Your task to perform on an android device: turn notification dots off Image 0: 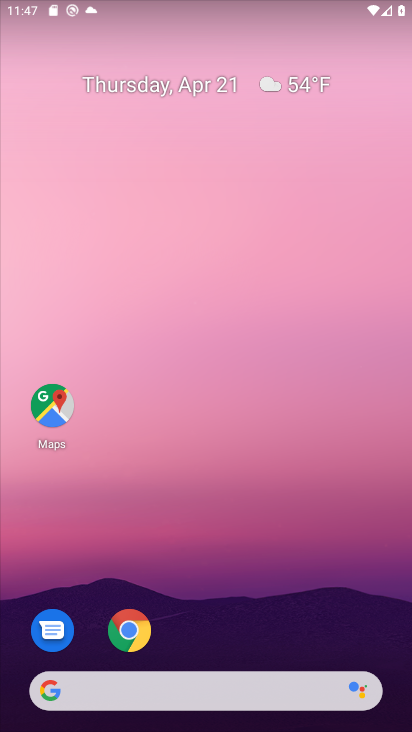
Step 0: drag from (194, 674) to (194, 151)
Your task to perform on an android device: turn notification dots off Image 1: 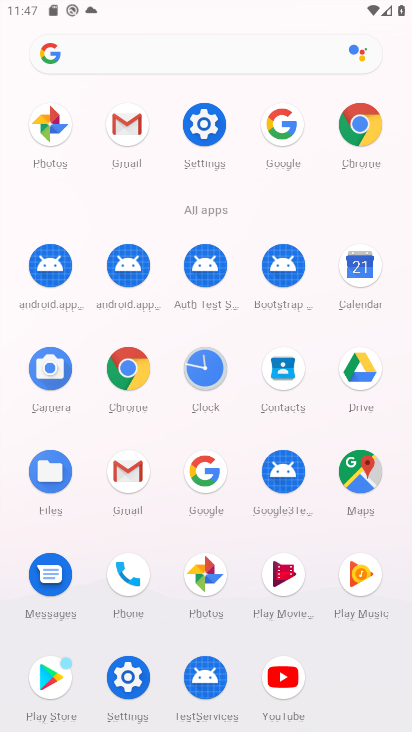
Step 1: click (208, 126)
Your task to perform on an android device: turn notification dots off Image 2: 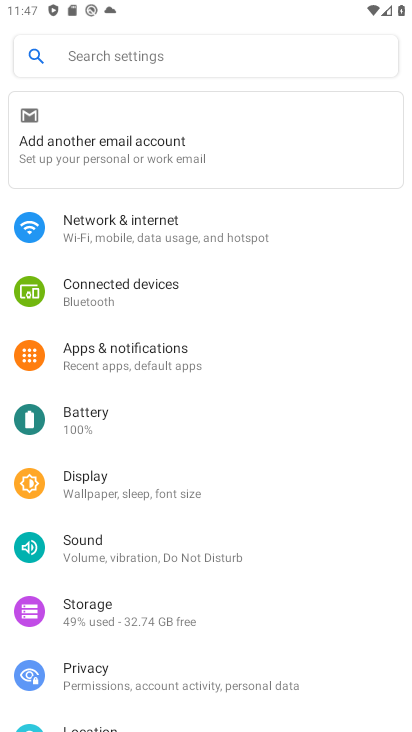
Step 2: click (117, 341)
Your task to perform on an android device: turn notification dots off Image 3: 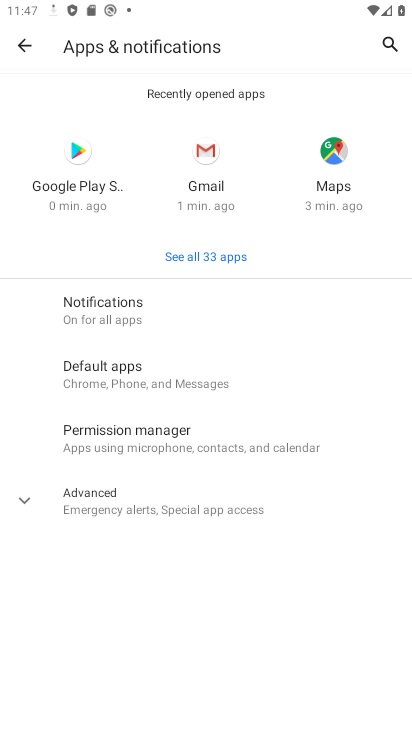
Step 3: click (109, 313)
Your task to perform on an android device: turn notification dots off Image 4: 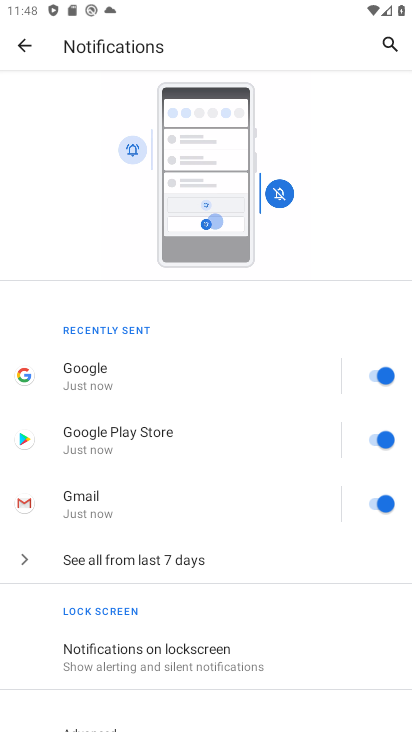
Step 4: drag from (159, 692) to (207, 341)
Your task to perform on an android device: turn notification dots off Image 5: 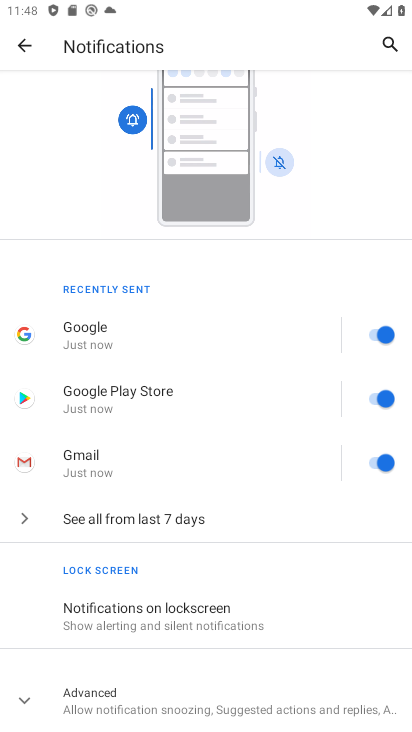
Step 5: click (145, 703)
Your task to perform on an android device: turn notification dots off Image 6: 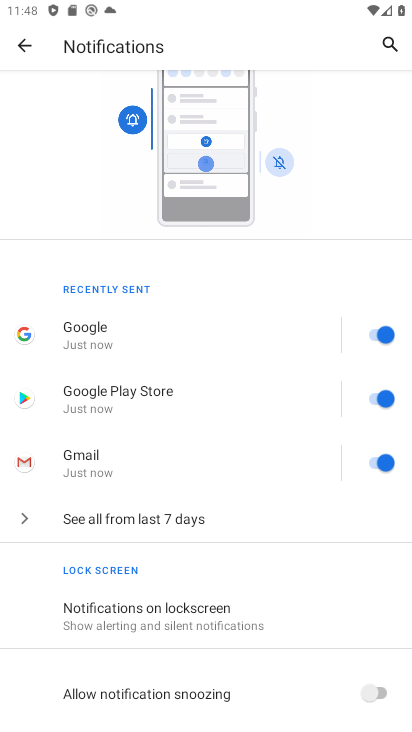
Step 6: drag from (201, 708) to (248, 325)
Your task to perform on an android device: turn notification dots off Image 7: 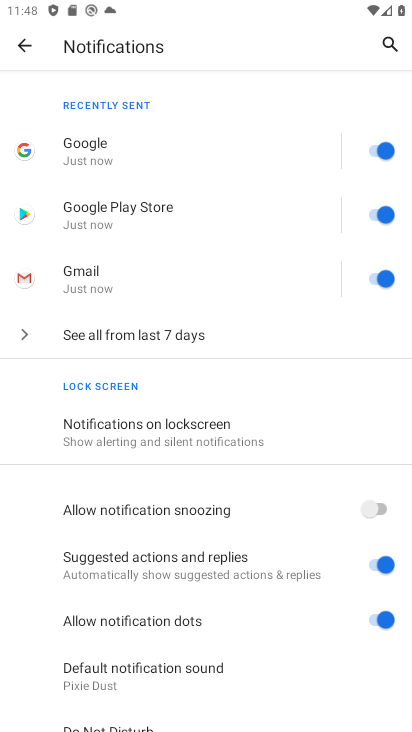
Step 7: click (369, 613)
Your task to perform on an android device: turn notification dots off Image 8: 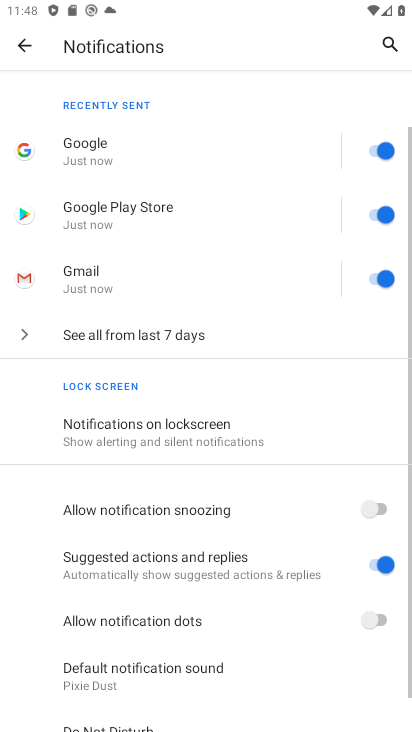
Step 8: task complete